Your task to perform on an android device: Open Reddit.com Image 0: 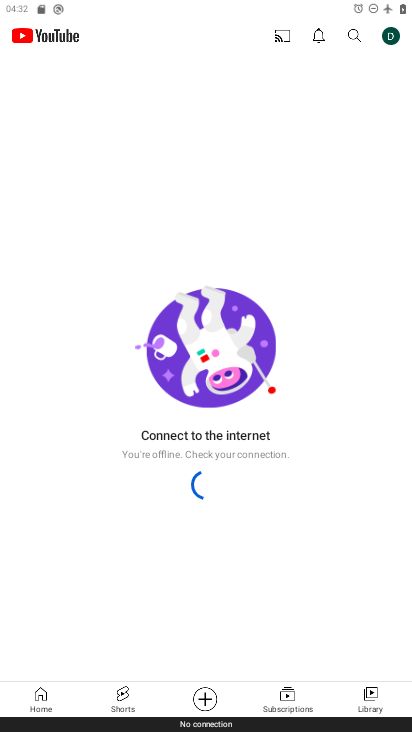
Step 0: press home button
Your task to perform on an android device: Open Reddit.com Image 1: 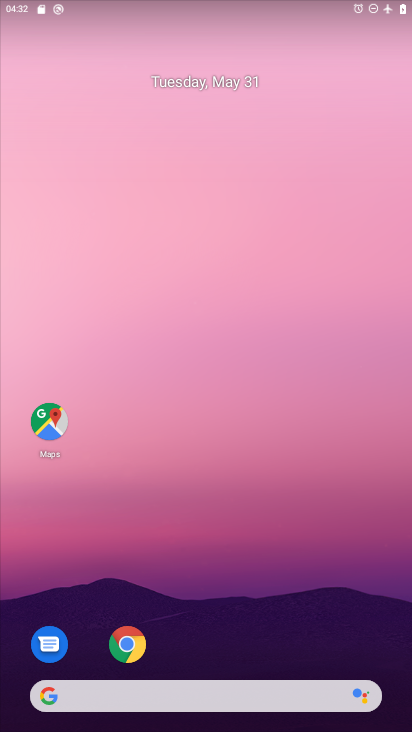
Step 1: click (130, 643)
Your task to perform on an android device: Open Reddit.com Image 2: 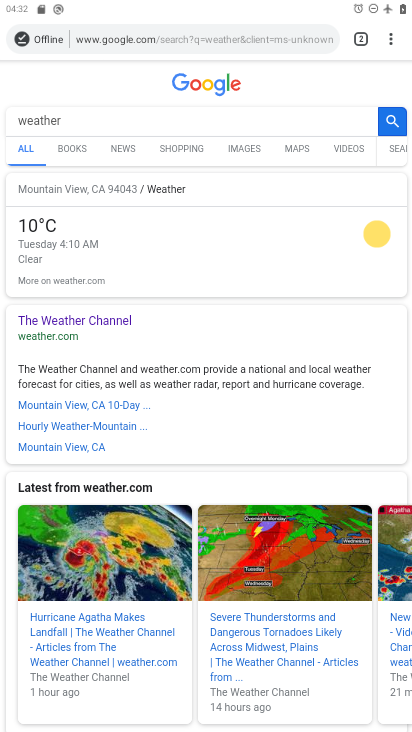
Step 2: click (186, 32)
Your task to perform on an android device: Open Reddit.com Image 3: 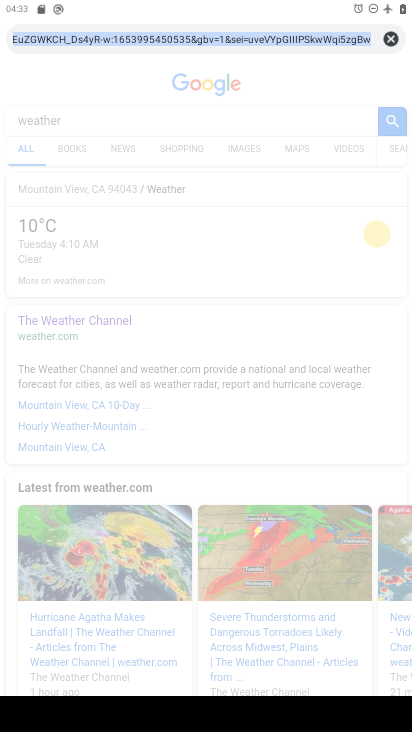
Step 3: type "reddit.com"
Your task to perform on an android device: Open Reddit.com Image 4: 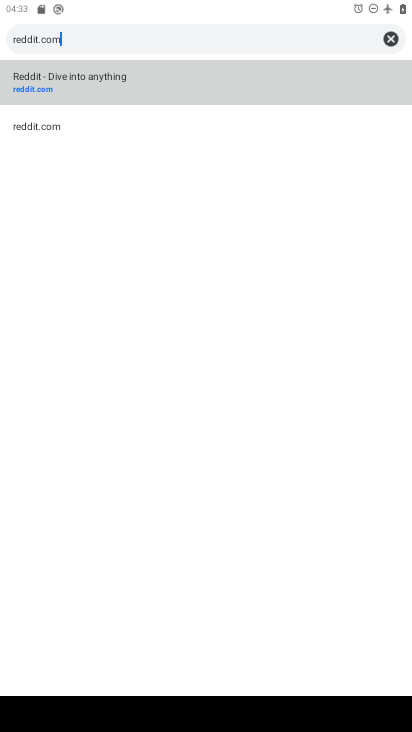
Step 4: click (42, 86)
Your task to perform on an android device: Open Reddit.com Image 5: 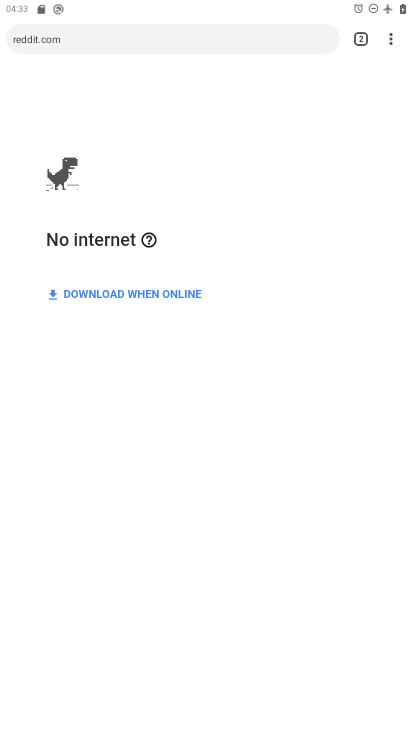
Step 5: task complete